Your task to perform on an android device: Open Yahoo.com Image 0: 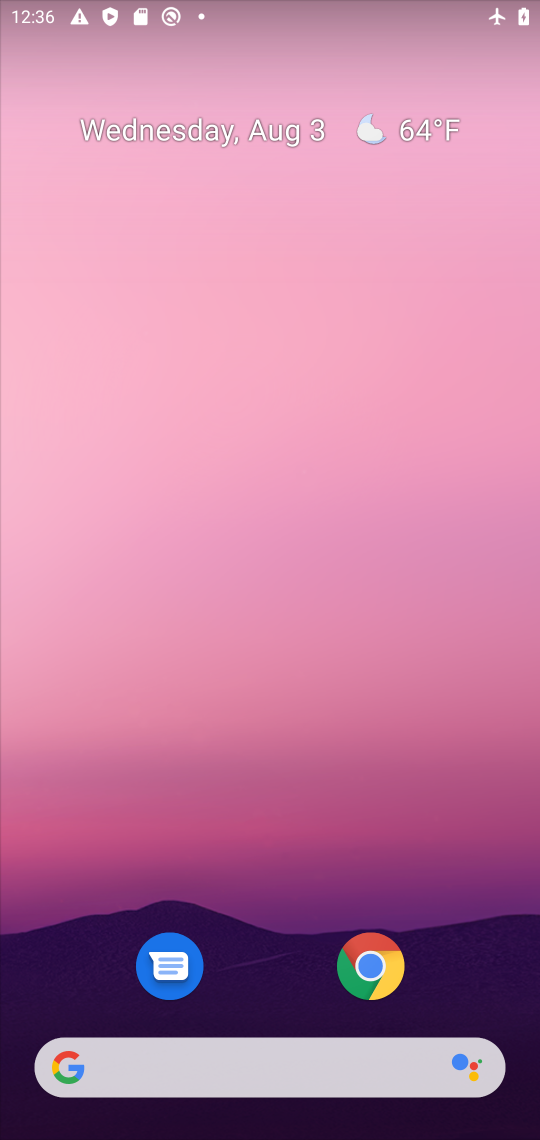
Step 0: click (391, 965)
Your task to perform on an android device: Open Yahoo.com Image 1: 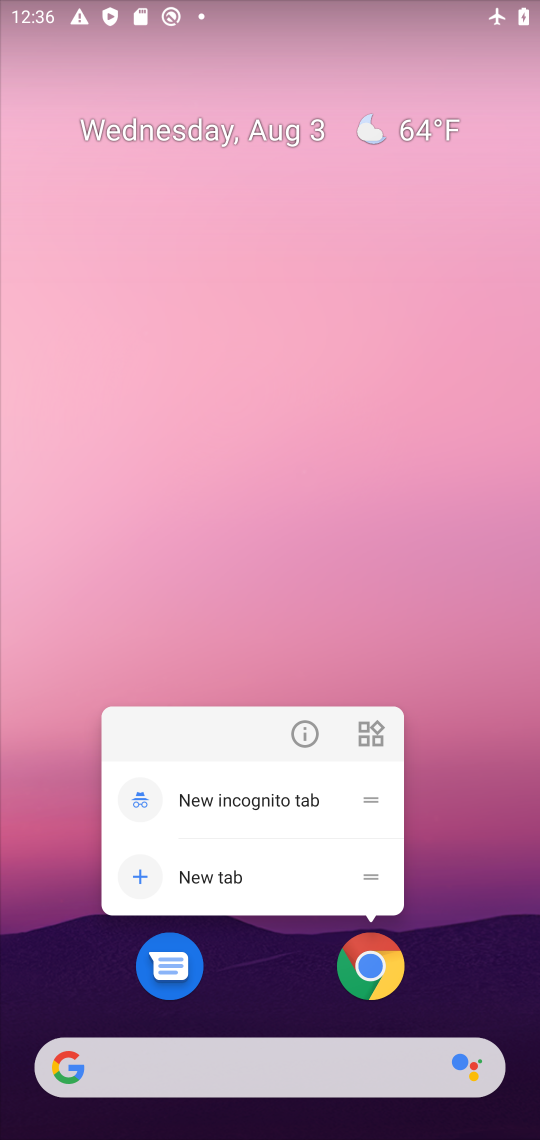
Step 1: click (391, 965)
Your task to perform on an android device: Open Yahoo.com Image 2: 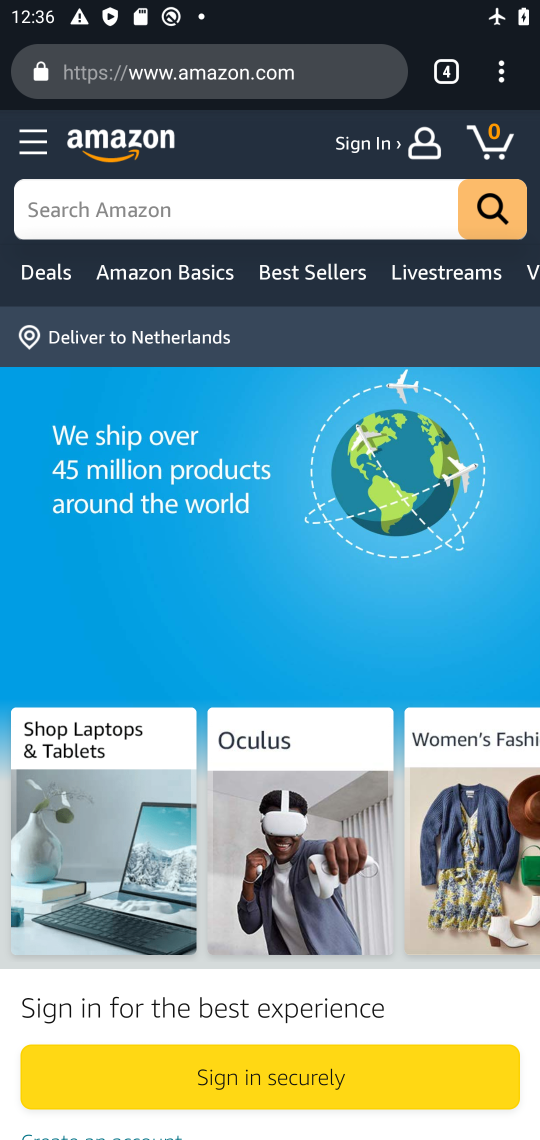
Step 2: click (433, 83)
Your task to perform on an android device: Open Yahoo.com Image 3: 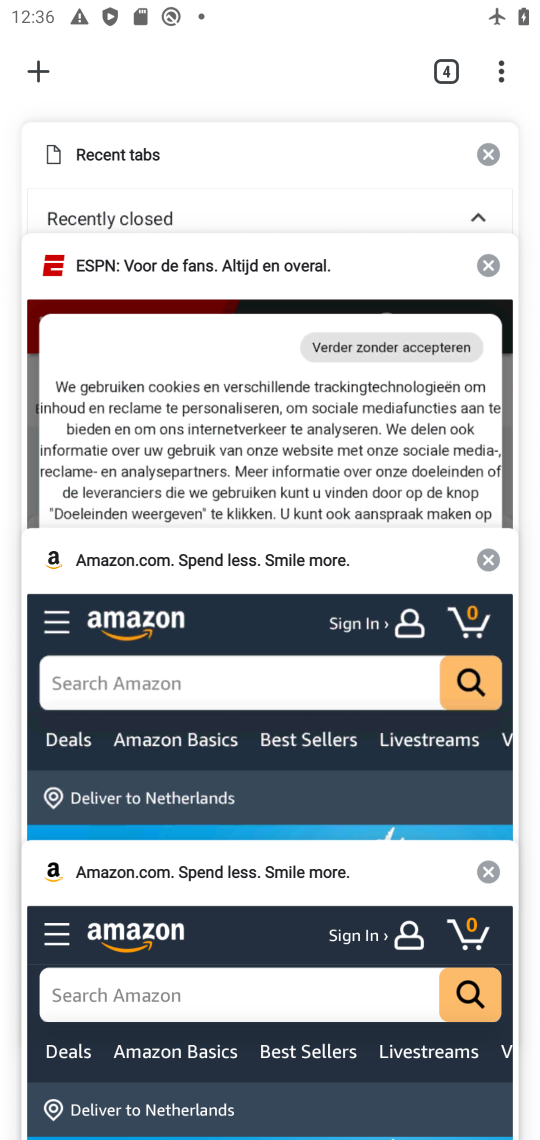
Step 3: click (38, 76)
Your task to perform on an android device: Open Yahoo.com Image 4: 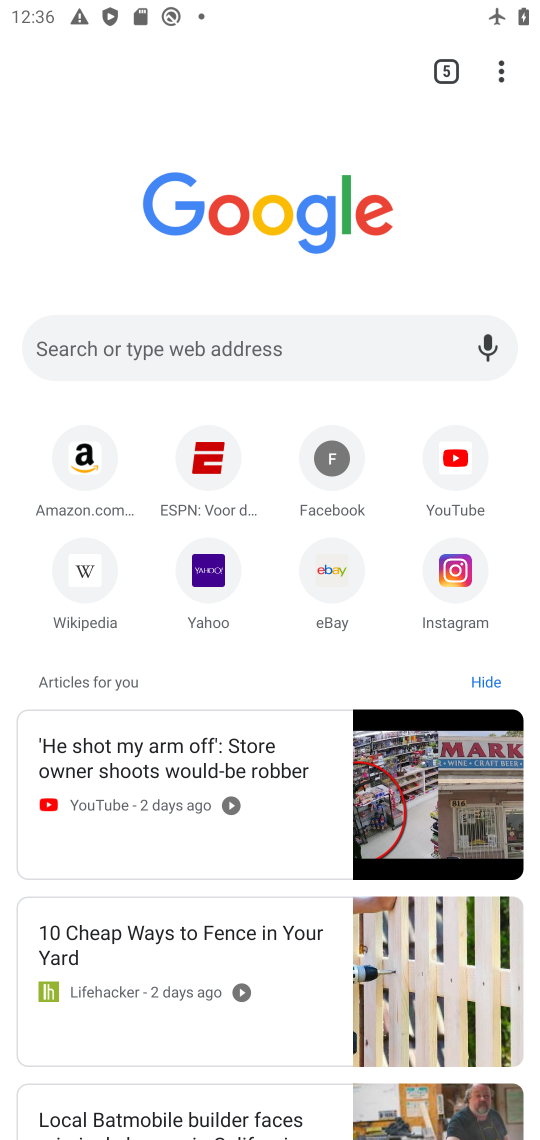
Step 4: click (216, 570)
Your task to perform on an android device: Open Yahoo.com Image 5: 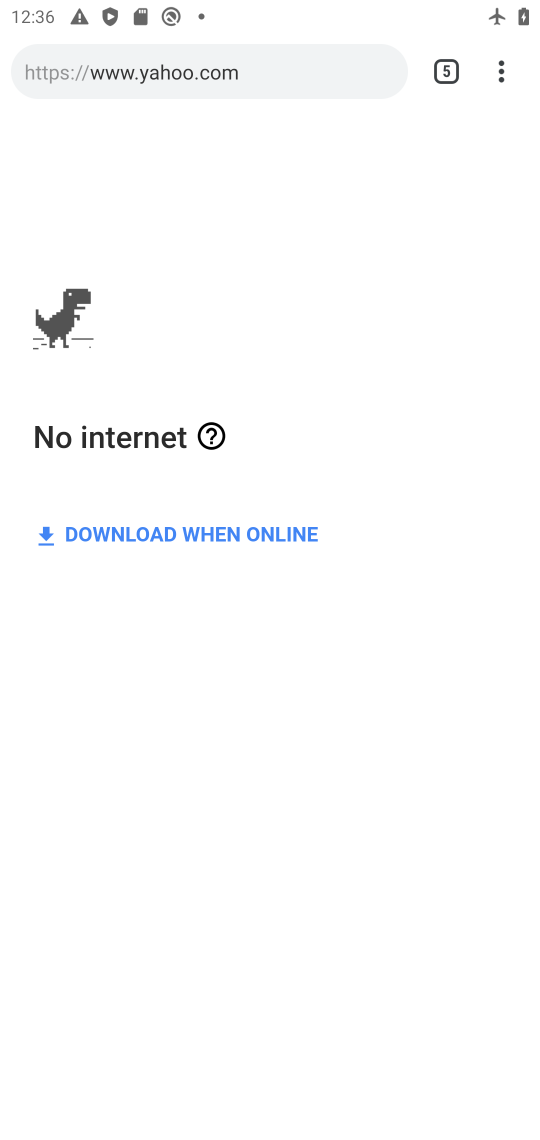
Step 5: task complete